Your task to perform on an android device: Show me recent news Image 0: 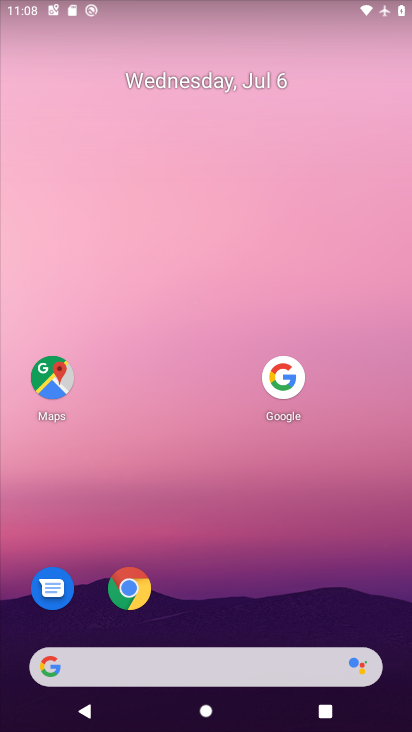
Step 0: press home button
Your task to perform on an android device: Show me recent news Image 1: 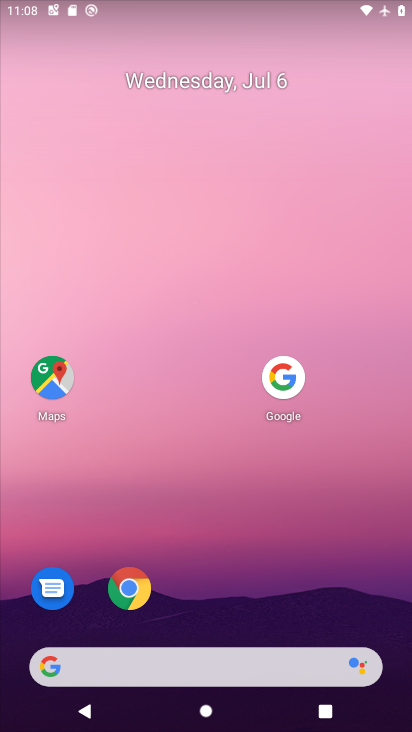
Step 1: click (169, 665)
Your task to perform on an android device: Show me recent news Image 2: 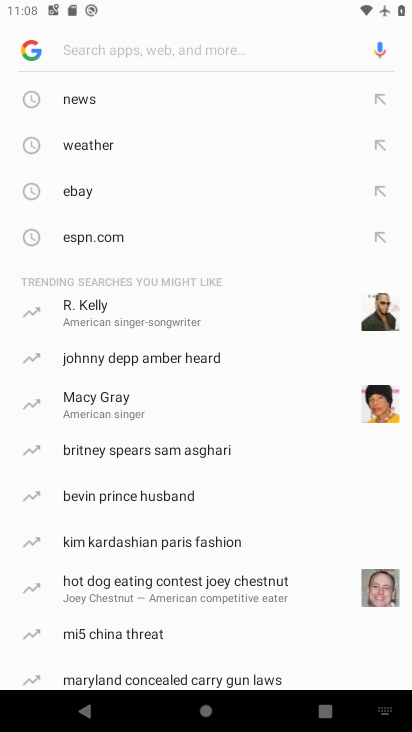
Step 2: click (87, 99)
Your task to perform on an android device: Show me recent news Image 3: 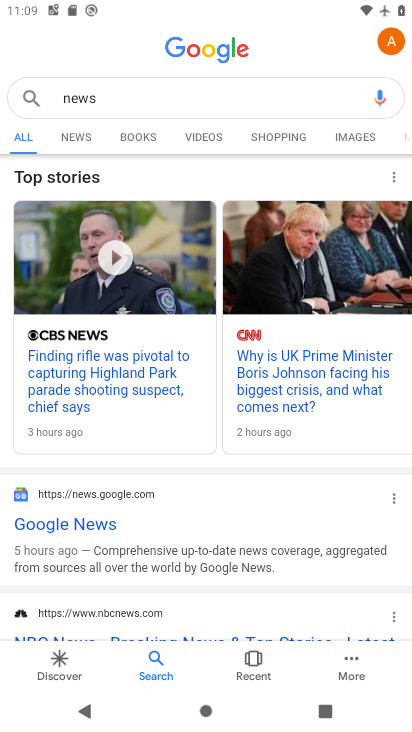
Step 3: task complete